Your task to perform on an android device: delete the emails in spam in the gmail app Image 0: 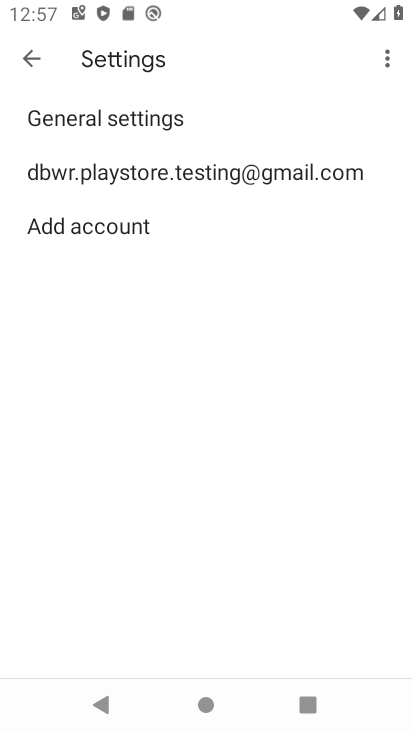
Step 0: press home button
Your task to perform on an android device: delete the emails in spam in the gmail app Image 1: 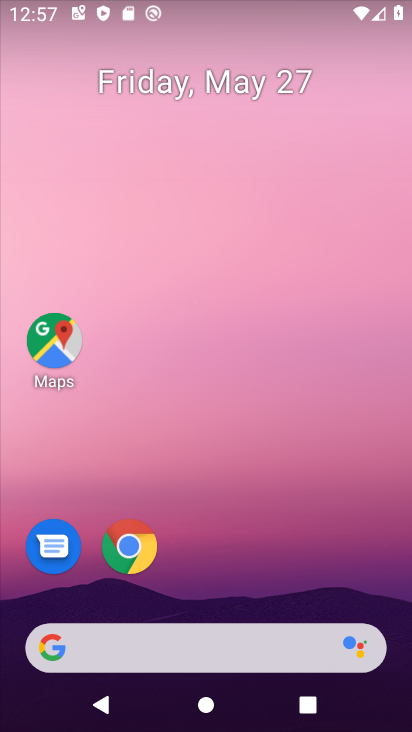
Step 1: drag from (258, 681) to (265, 266)
Your task to perform on an android device: delete the emails in spam in the gmail app Image 2: 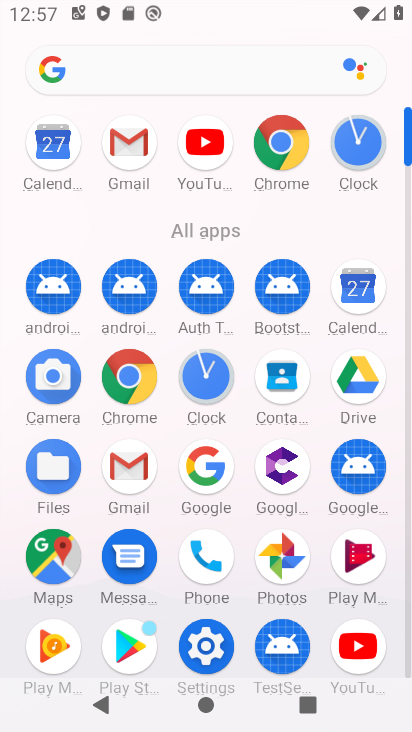
Step 2: click (124, 151)
Your task to perform on an android device: delete the emails in spam in the gmail app Image 3: 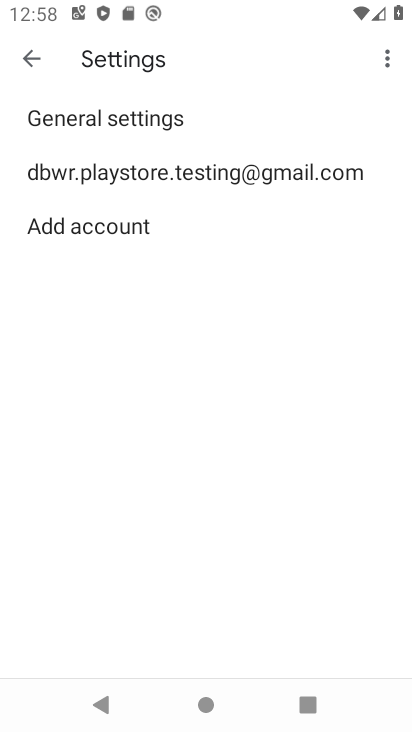
Step 3: click (33, 67)
Your task to perform on an android device: delete the emails in spam in the gmail app Image 4: 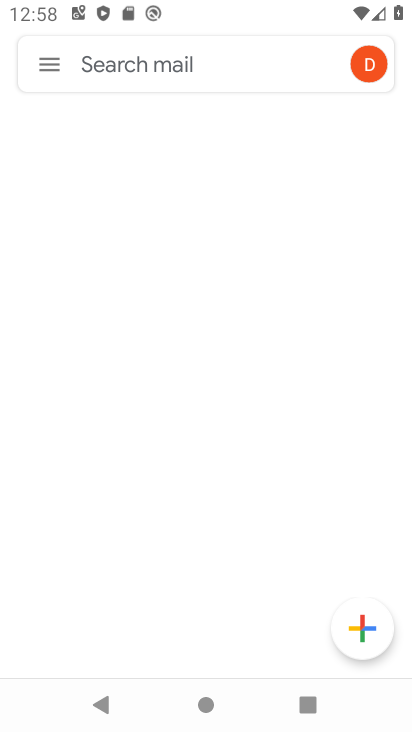
Step 4: click (51, 66)
Your task to perform on an android device: delete the emails in spam in the gmail app Image 5: 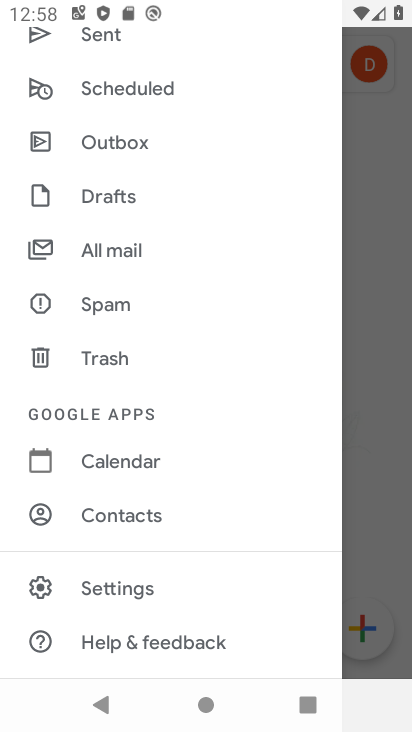
Step 5: click (119, 306)
Your task to perform on an android device: delete the emails in spam in the gmail app Image 6: 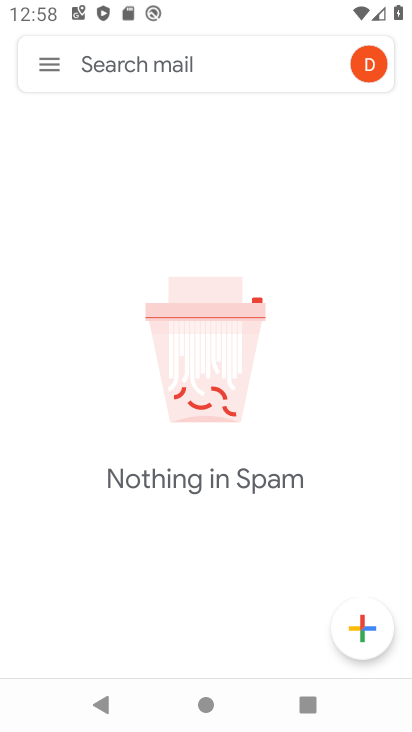
Step 6: task complete